Your task to perform on an android device: Go to Amazon Image 0: 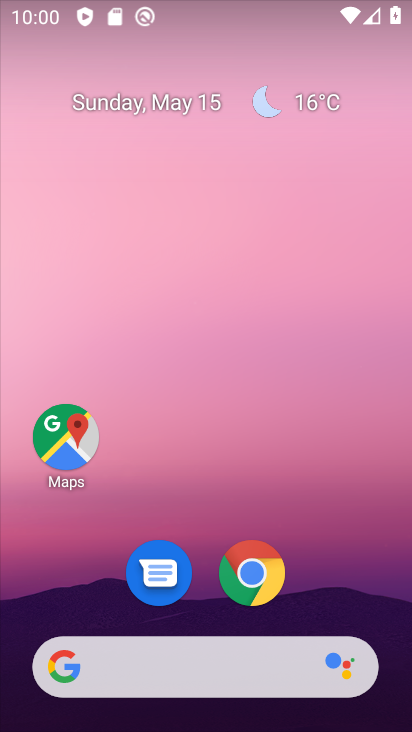
Step 0: click (245, 568)
Your task to perform on an android device: Go to Amazon Image 1: 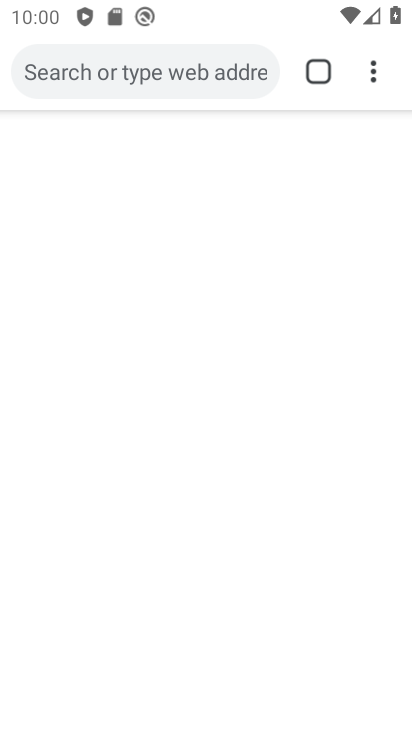
Step 1: click (246, 477)
Your task to perform on an android device: Go to Amazon Image 2: 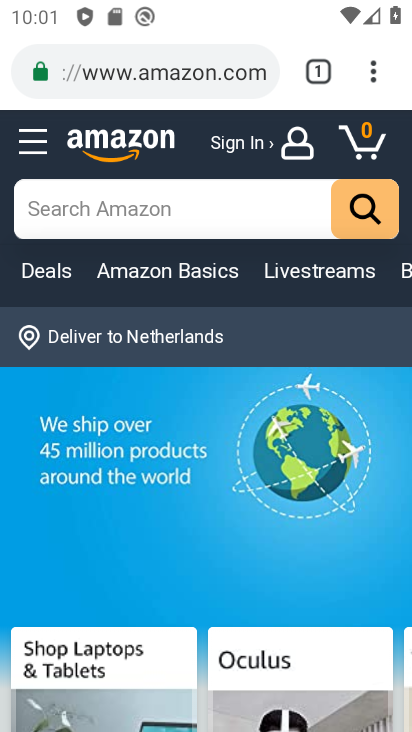
Step 2: task complete